Your task to perform on an android device: toggle priority inbox in the gmail app Image 0: 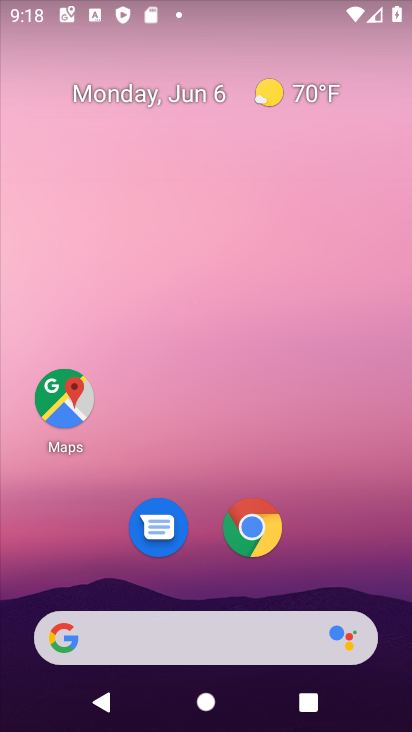
Step 0: drag from (233, 604) to (245, 428)
Your task to perform on an android device: toggle priority inbox in the gmail app Image 1: 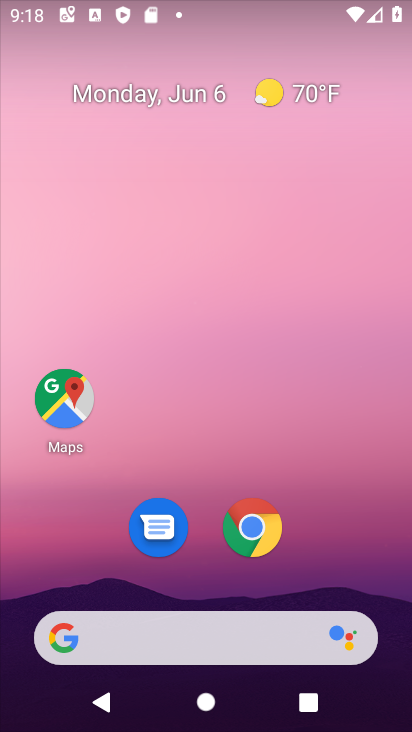
Step 1: drag from (236, 445) to (258, 281)
Your task to perform on an android device: toggle priority inbox in the gmail app Image 2: 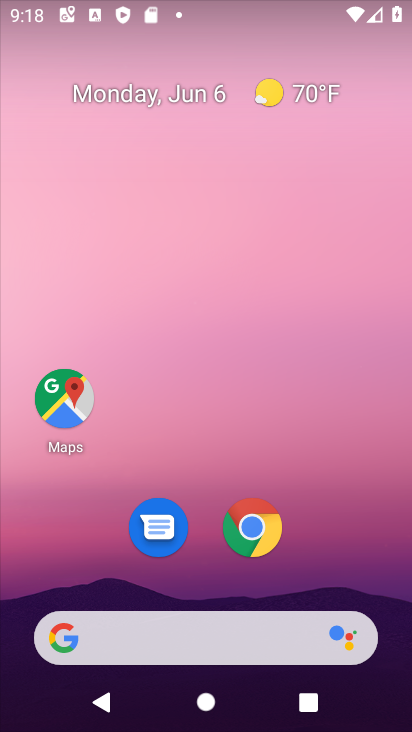
Step 2: drag from (261, 570) to (317, 12)
Your task to perform on an android device: toggle priority inbox in the gmail app Image 3: 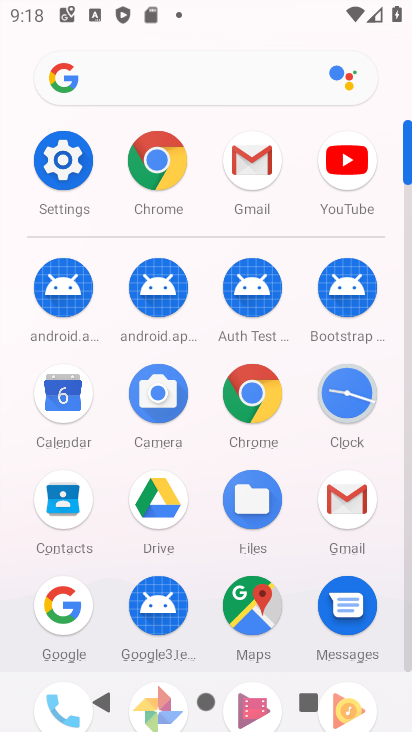
Step 3: click (334, 498)
Your task to perform on an android device: toggle priority inbox in the gmail app Image 4: 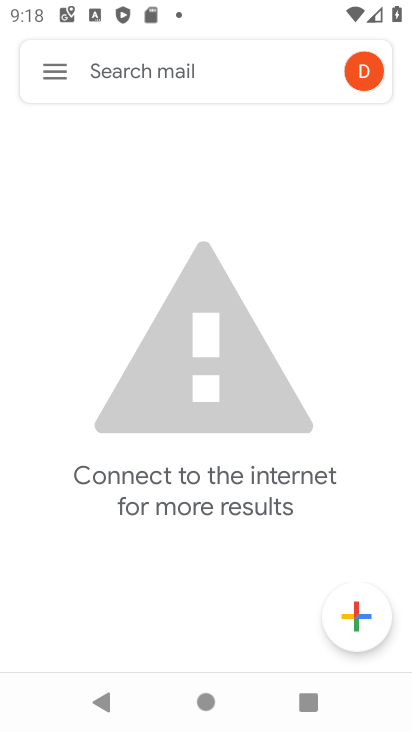
Step 4: click (56, 72)
Your task to perform on an android device: toggle priority inbox in the gmail app Image 5: 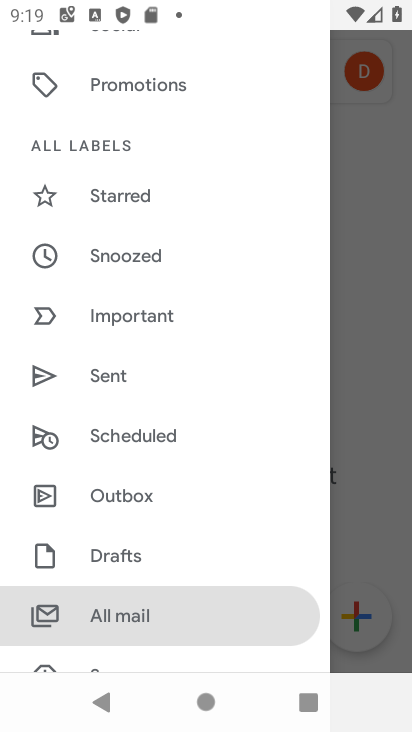
Step 5: drag from (120, 440) to (126, 104)
Your task to perform on an android device: toggle priority inbox in the gmail app Image 6: 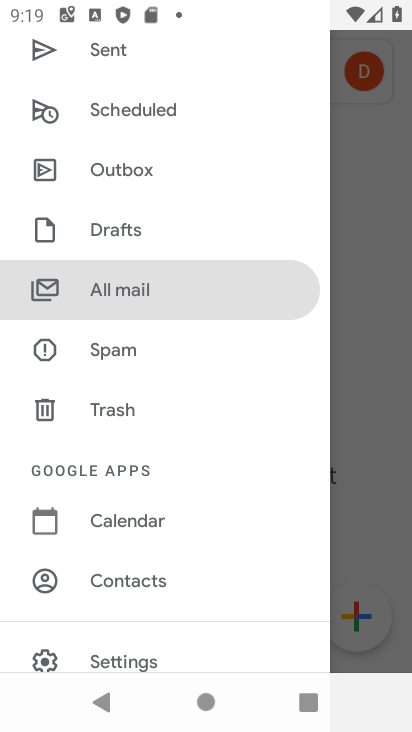
Step 6: drag from (134, 540) to (183, 222)
Your task to perform on an android device: toggle priority inbox in the gmail app Image 7: 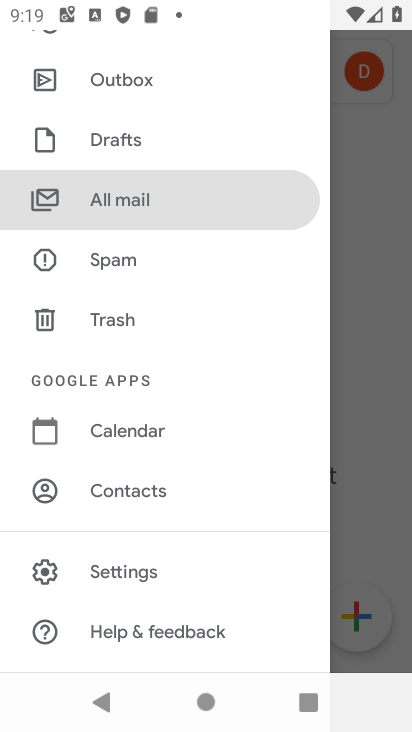
Step 7: click (130, 566)
Your task to perform on an android device: toggle priority inbox in the gmail app Image 8: 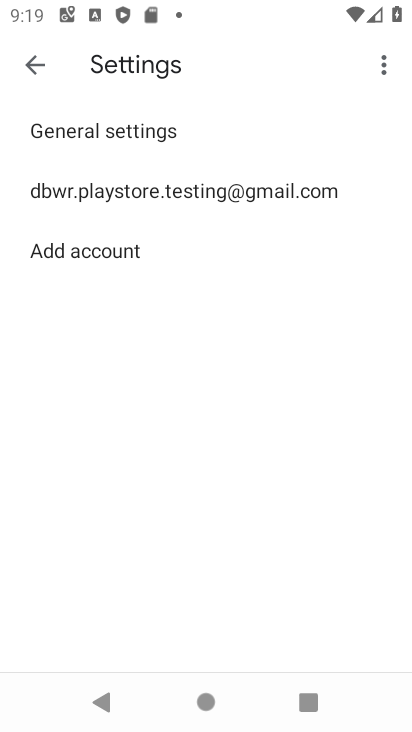
Step 8: click (145, 184)
Your task to perform on an android device: toggle priority inbox in the gmail app Image 9: 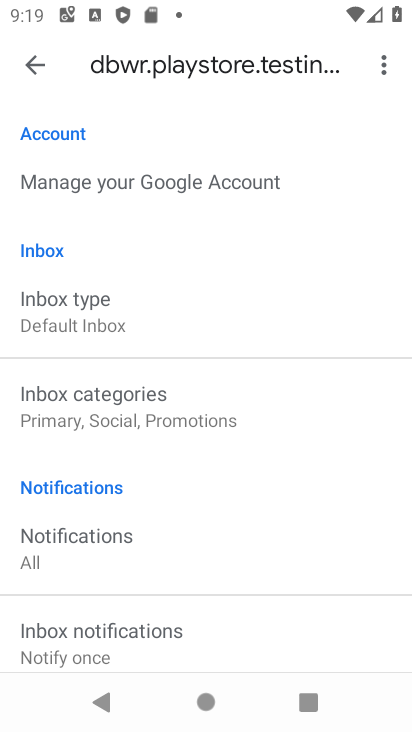
Step 9: click (102, 296)
Your task to perform on an android device: toggle priority inbox in the gmail app Image 10: 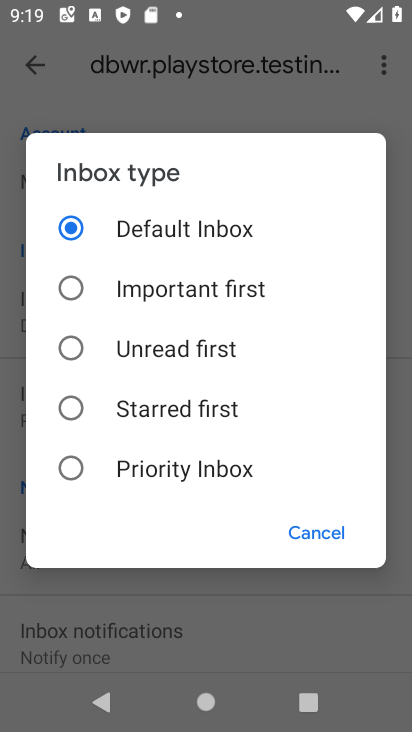
Step 10: click (104, 448)
Your task to perform on an android device: toggle priority inbox in the gmail app Image 11: 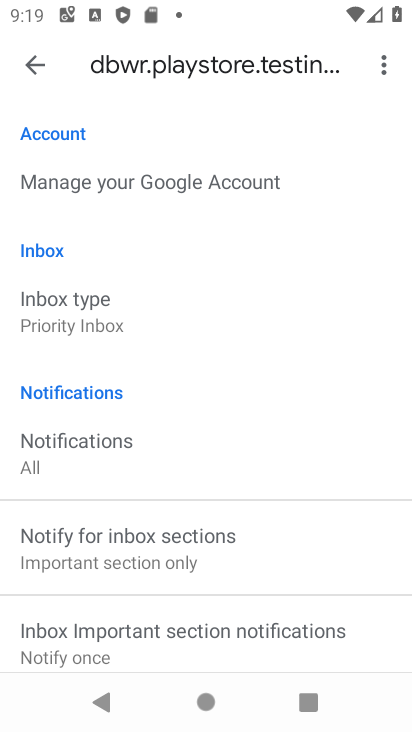
Step 11: task complete